Your task to perform on an android device: turn on sleep mode Image 0: 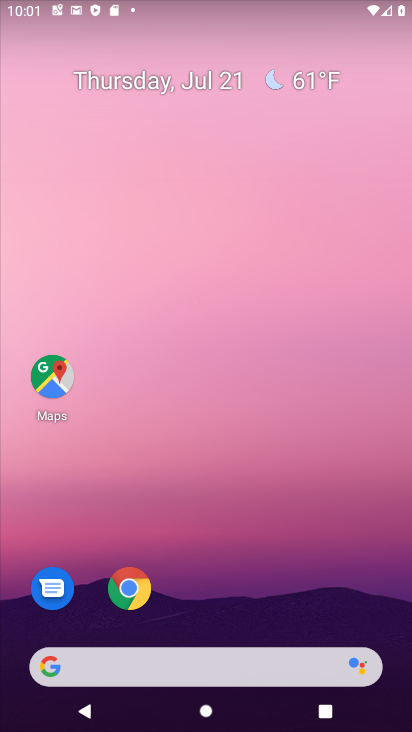
Step 0: drag from (247, 623) to (348, 34)
Your task to perform on an android device: turn on sleep mode Image 1: 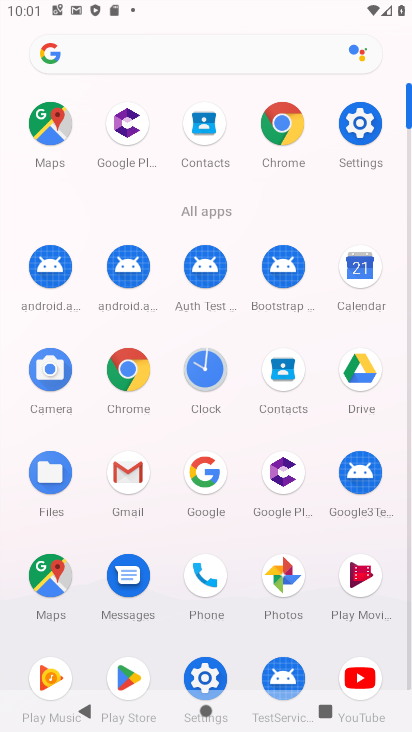
Step 1: click (362, 125)
Your task to perform on an android device: turn on sleep mode Image 2: 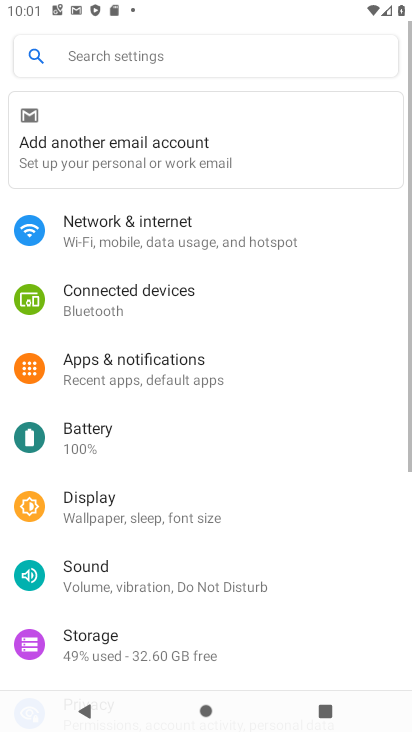
Step 2: click (130, 54)
Your task to perform on an android device: turn on sleep mode Image 3: 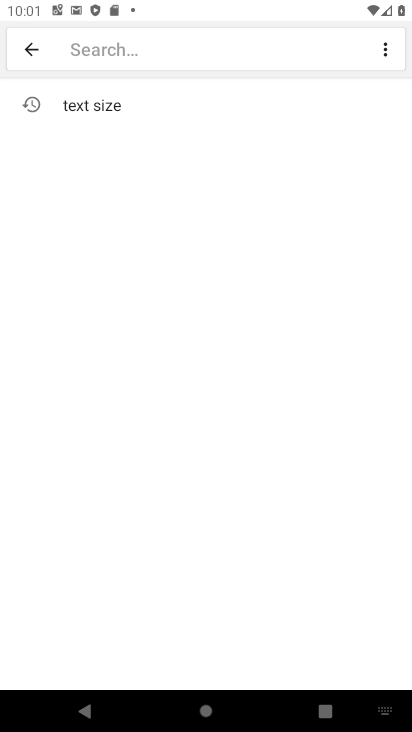
Step 3: type "sleep mode"
Your task to perform on an android device: turn on sleep mode Image 4: 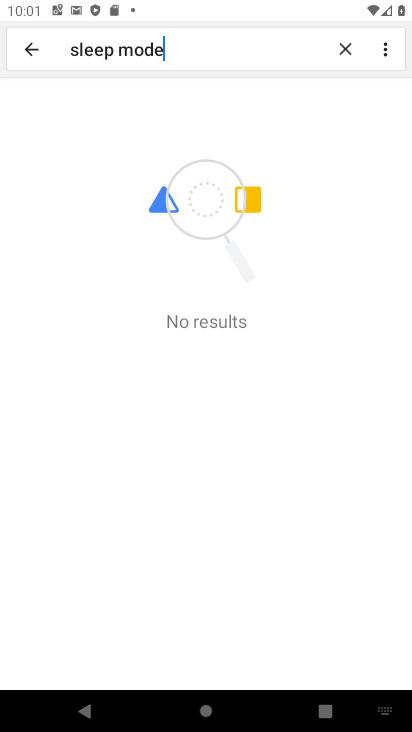
Step 4: task complete